Your task to perform on an android device: add a contact in the contacts app Image 0: 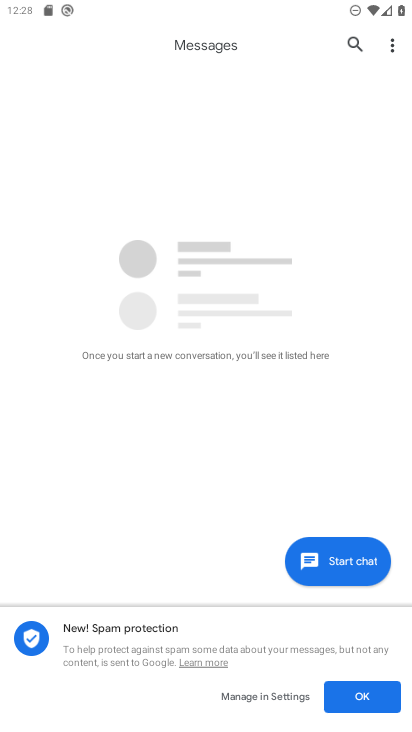
Step 0: press home button
Your task to perform on an android device: add a contact in the contacts app Image 1: 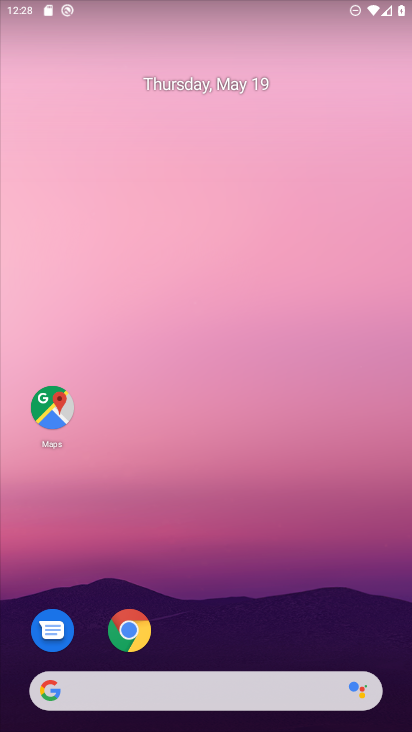
Step 1: drag from (209, 637) to (234, 305)
Your task to perform on an android device: add a contact in the contacts app Image 2: 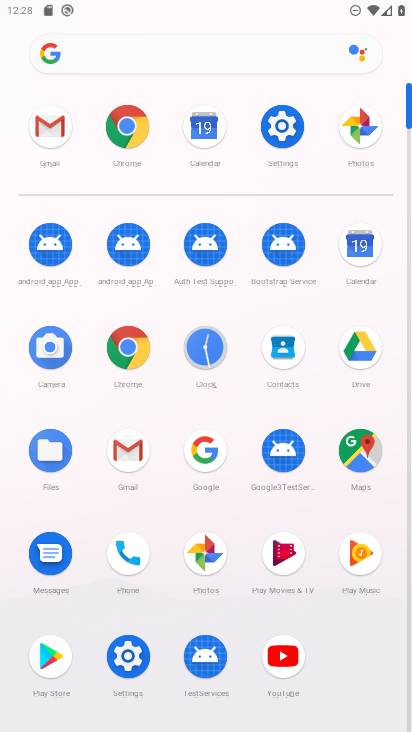
Step 2: click (282, 353)
Your task to perform on an android device: add a contact in the contacts app Image 3: 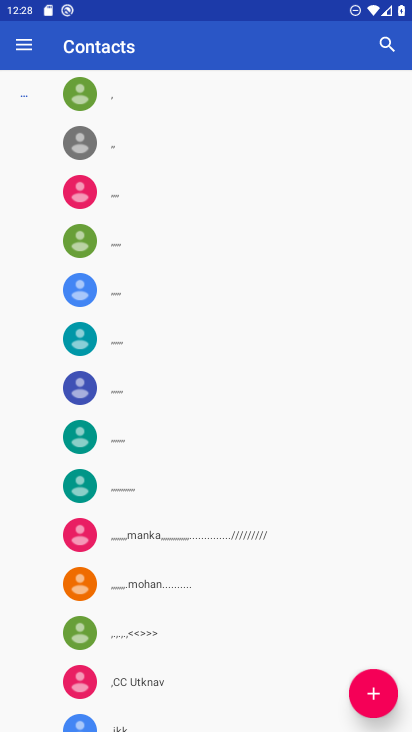
Step 3: click (384, 695)
Your task to perform on an android device: add a contact in the contacts app Image 4: 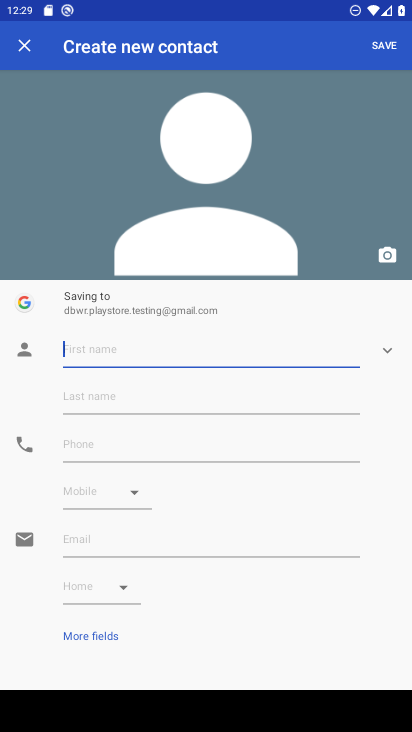
Step 4: type "bfg"
Your task to perform on an android device: add a contact in the contacts app Image 5: 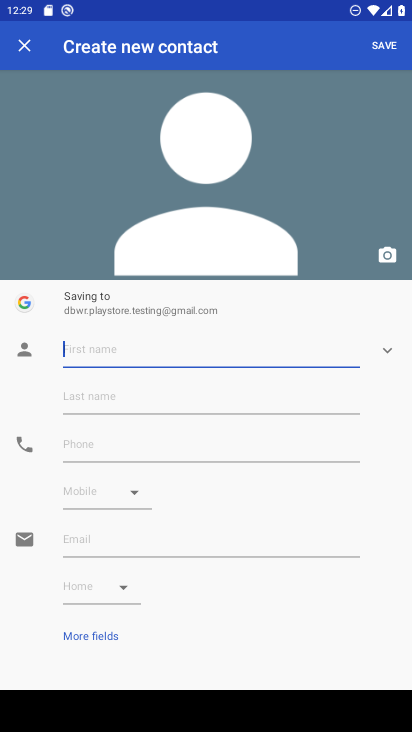
Step 5: click (118, 403)
Your task to perform on an android device: add a contact in the contacts app Image 6: 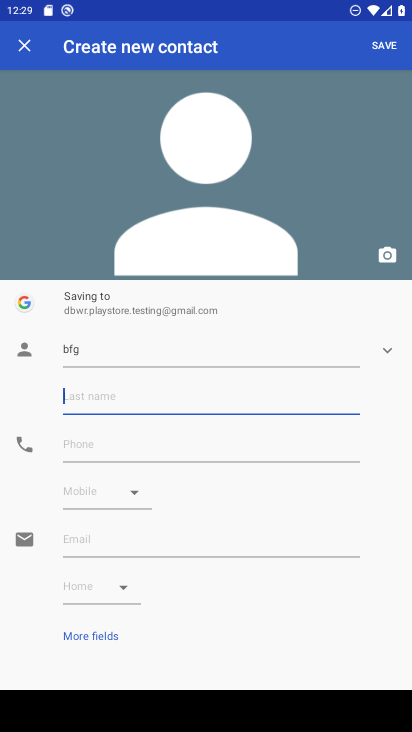
Step 6: type "bdff"
Your task to perform on an android device: add a contact in the contacts app Image 7: 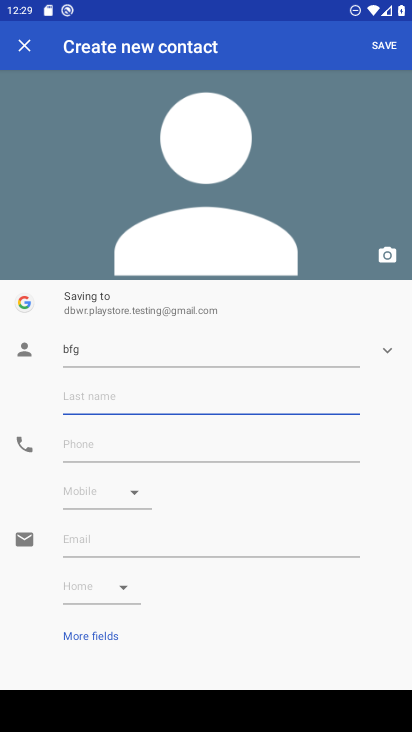
Step 7: click (83, 447)
Your task to perform on an android device: add a contact in the contacts app Image 8: 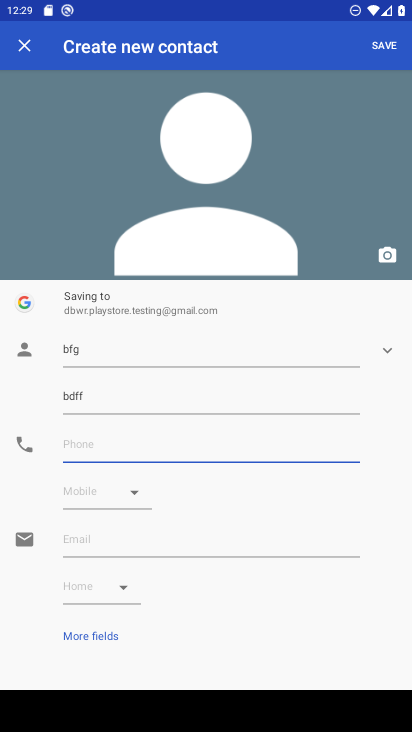
Step 8: type "1323"
Your task to perform on an android device: add a contact in the contacts app Image 9: 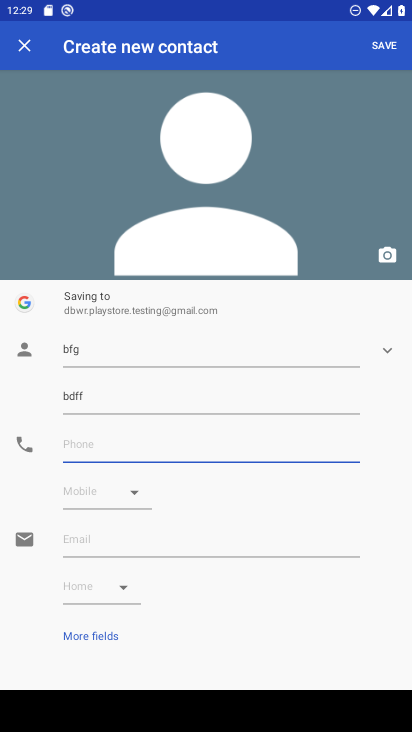
Step 9: click (92, 503)
Your task to perform on an android device: add a contact in the contacts app Image 10: 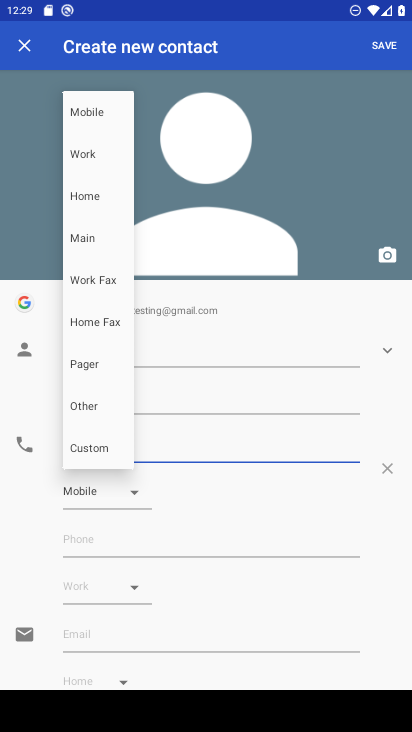
Step 10: click (395, 46)
Your task to perform on an android device: add a contact in the contacts app Image 11: 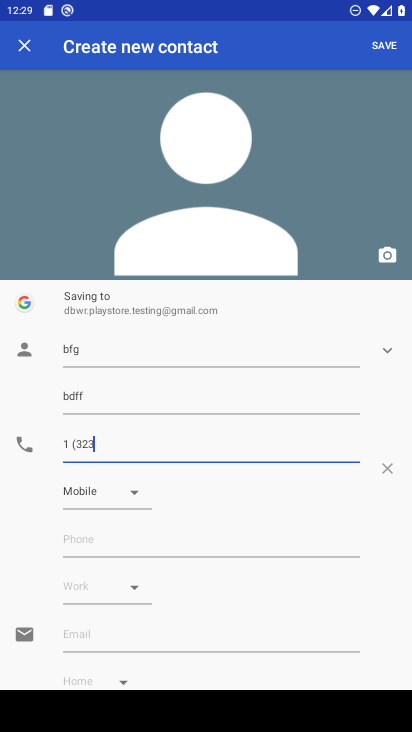
Step 11: click (382, 47)
Your task to perform on an android device: add a contact in the contacts app Image 12: 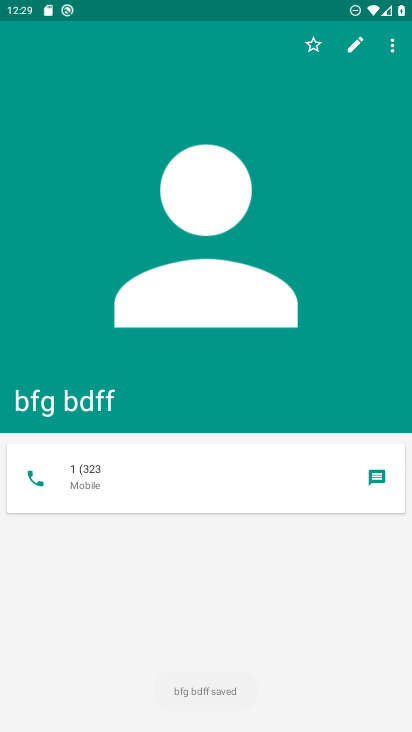
Step 12: task complete